Your task to perform on an android device: set default search engine in the chrome app Image 0: 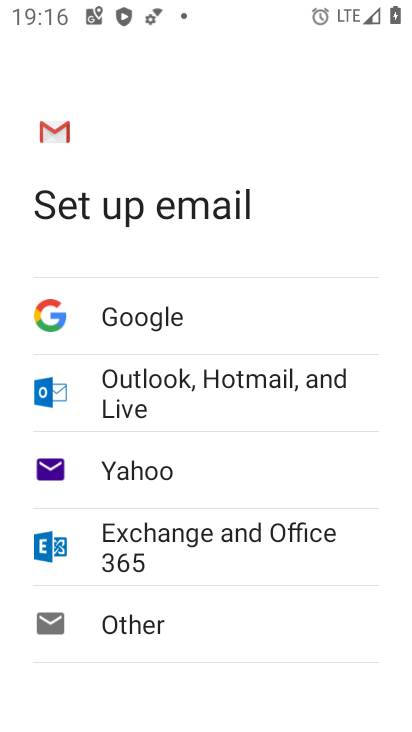
Step 0: press home button
Your task to perform on an android device: set default search engine in the chrome app Image 1: 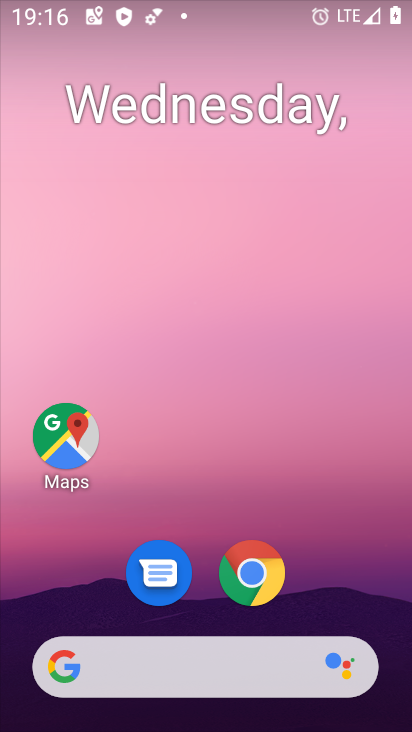
Step 1: drag from (349, 580) to (347, 0)
Your task to perform on an android device: set default search engine in the chrome app Image 2: 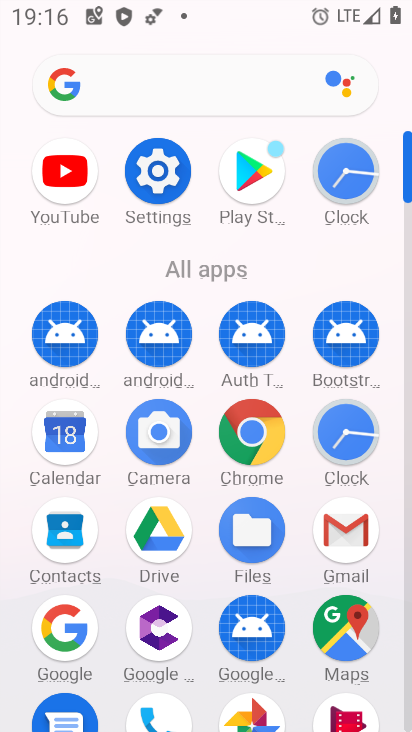
Step 2: click (235, 435)
Your task to perform on an android device: set default search engine in the chrome app Image 3: 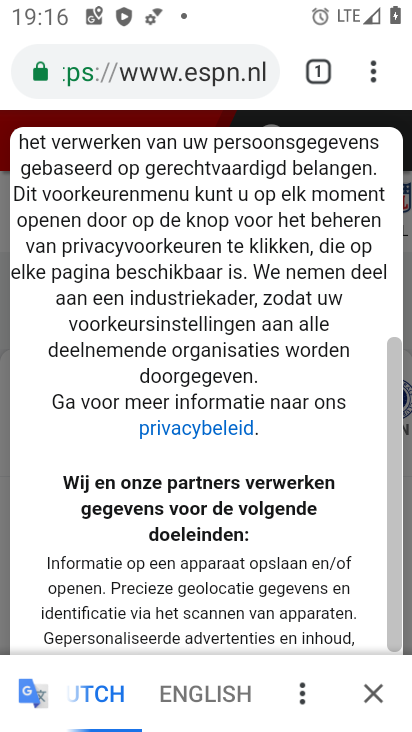
Step 3: click (385, 75)
Your task to perform on an android device: set default search engine in the chrome app Image 4: 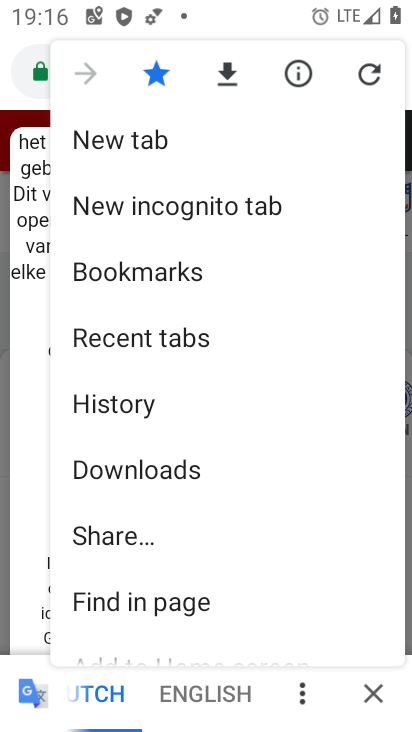
Step 4: drag from (217, 649) to (196, 340)
Your task to perform on an android device: set default search engine in the chrome app Image 5: 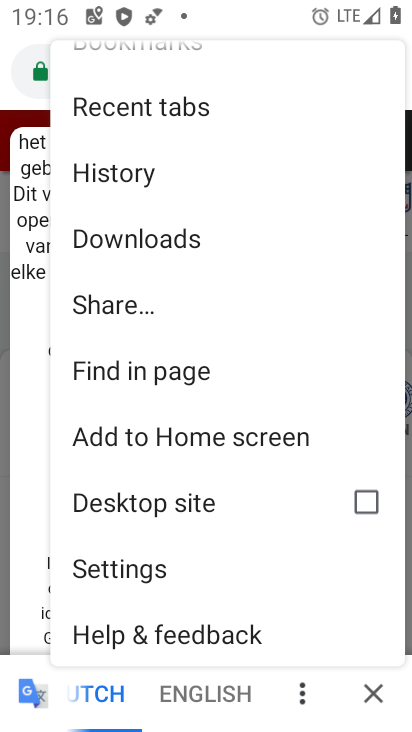
Step 5: click (151, 568)
Your task to perform on an android device: set default search engine in the chrome app Image 6: 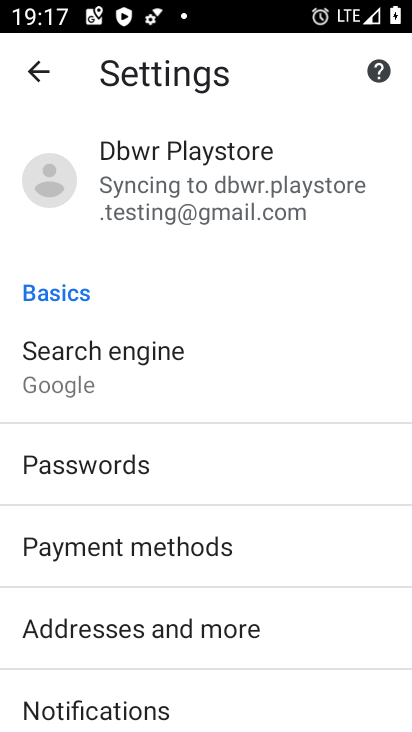
Step 6: click (118, 369)
Your task to perform on an android device: set default search engine in the chrome app Image 7: 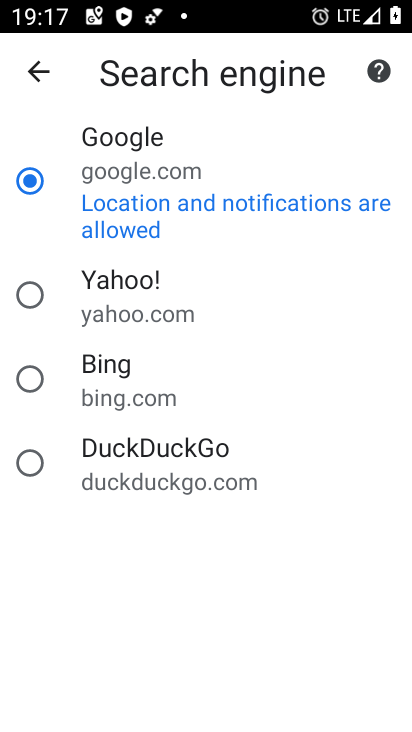
Step 7: click (126, 364)
Your task to perform on an android device: set default search engine in the chrome app Image 8: 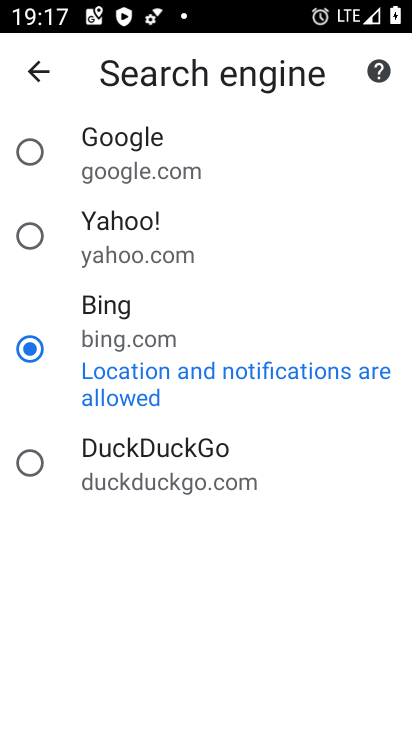
Step 8: task complete